Your task to perform on an android device: Open Google Image 0: 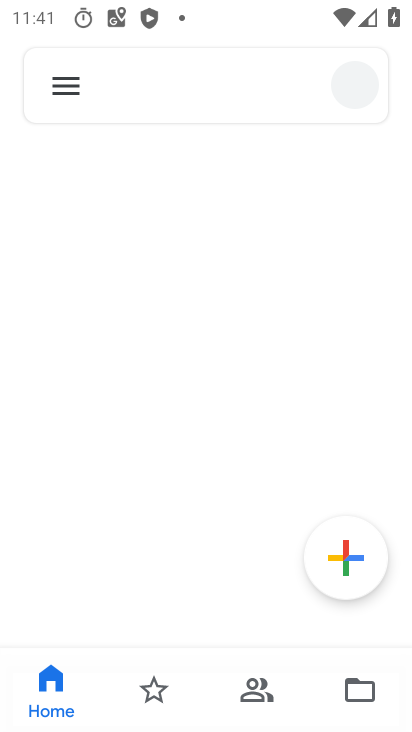
Step 0: drag from (371, 583) to (332, 167)
Your task to perform on an android device: Open Google Image 1: 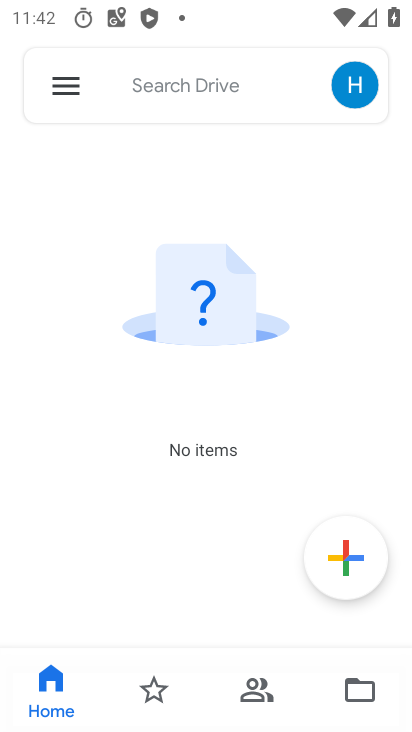
Step 1: press home button
Your task to perform on an android device: Open Google Image 2: 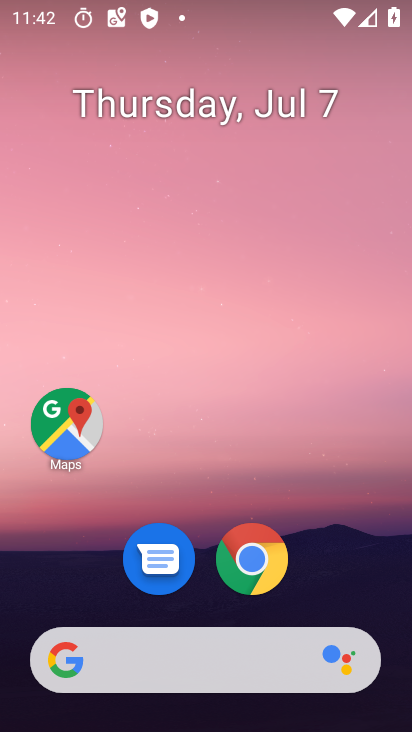
Step 2: drag from (362, 591) to (350, 91)
Your task to perform on an android device: Open Google Image 3: 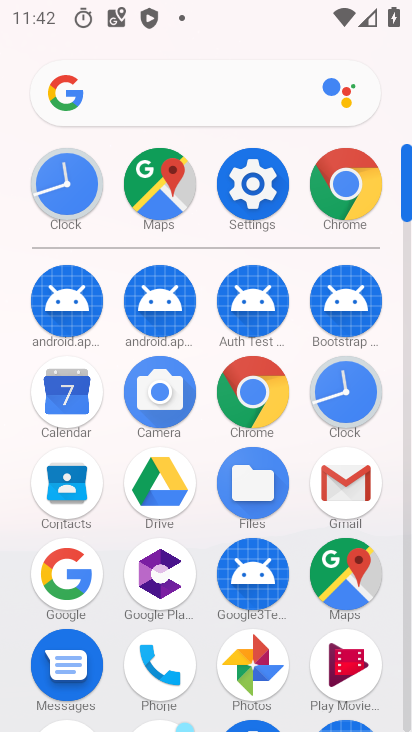
Step 3: click (89, 562)
Your task to perform on an android device: Open Google Image 4: 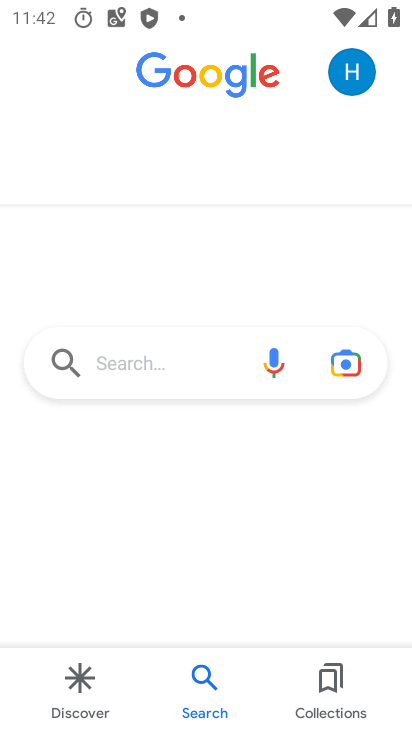
Step 4: task complete